Your task to perform on an android device: Search for vegetarian restaurants on Maps Image 0: 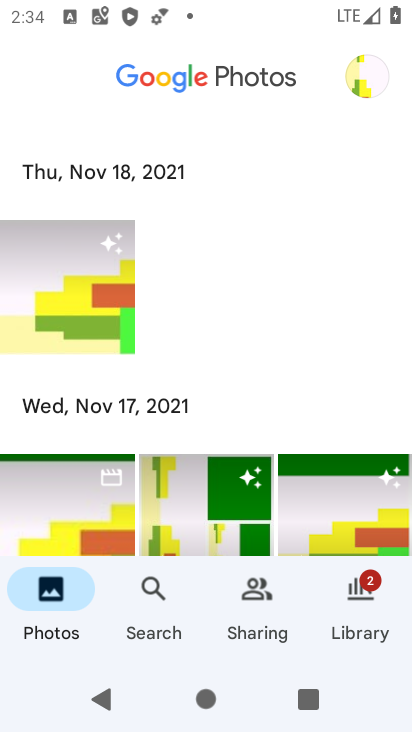
Step 0: press home button
Your task to perform on an android device: Search for vegetarian restaurants on Maps Image 1: 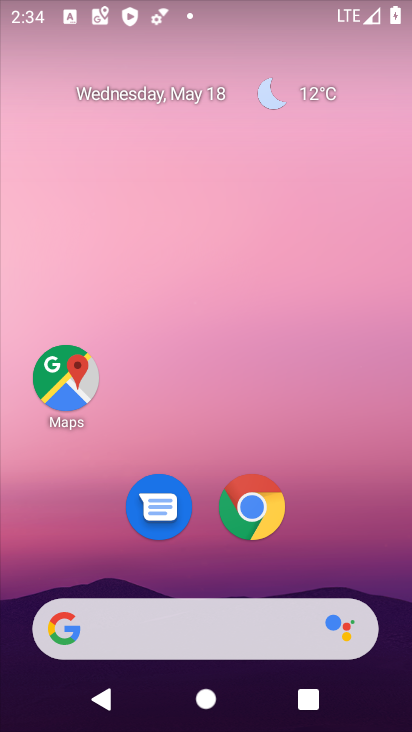
Step 1: click (59, 372)
Your task to perform on an android device: Search for vegetarian restaurants on Maps Image 2: 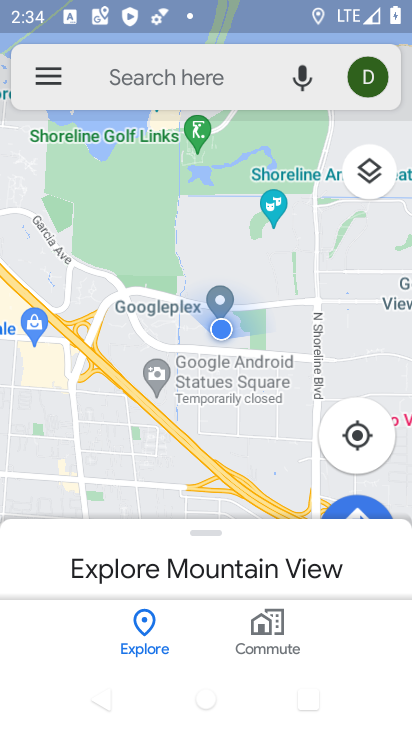
Step 2: click (129, 74)
Your task to perform on an android device: Search for vegetarian restaurants on Maps Image 3: 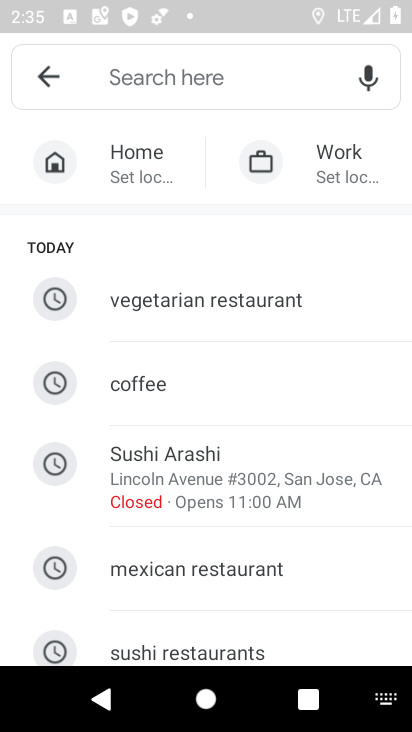
Step 3: type "vegetarian restaurants"
Your task to perform on an android device: Search for vegetarian restaurants on Maps Image 4: 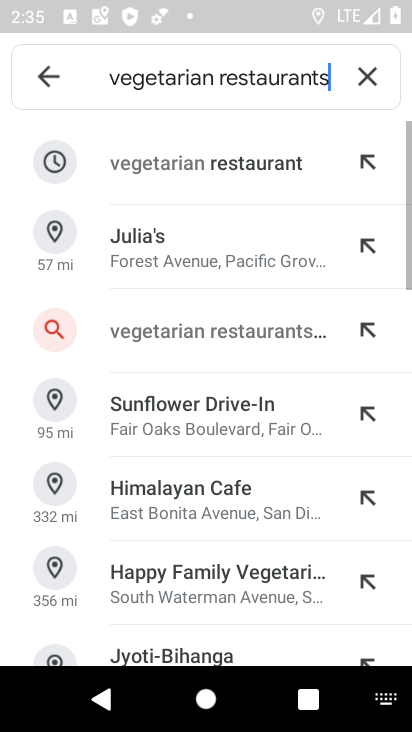
Step 4: click (161, 157)
Your task to perform on an android device: Search for vegetarian restaurants on Maps Image 5: 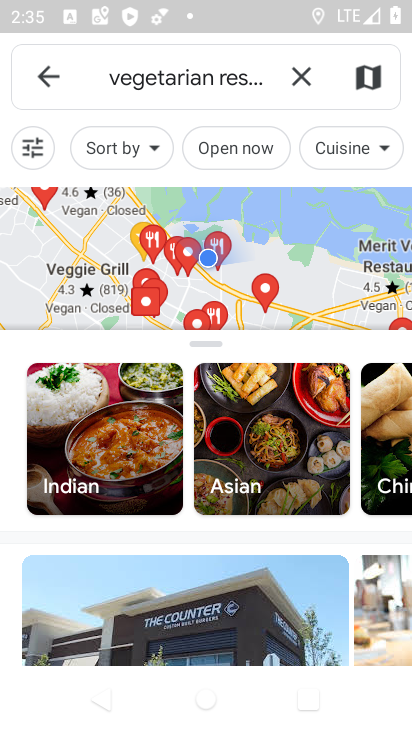
Step 5: task complete